Your task to perform on an android device: Is it going to rain this weekend? Image 0: 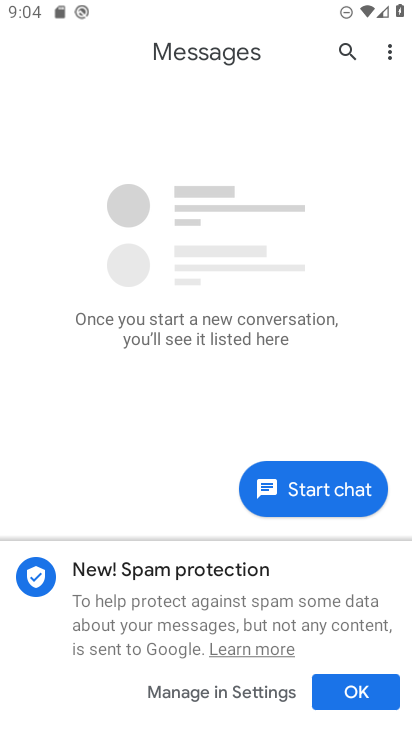
Step 0: press back button
Your task to perform on an android device: Is it going to rain this weekend? Image 1: 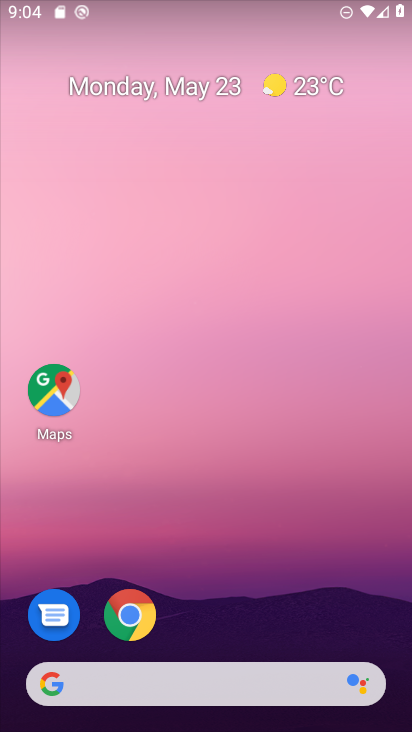
Step 1: drag from (274, 567) to (221, 107)
Your task to perform on an android device: Is it going to rain this weekend? Image 2: 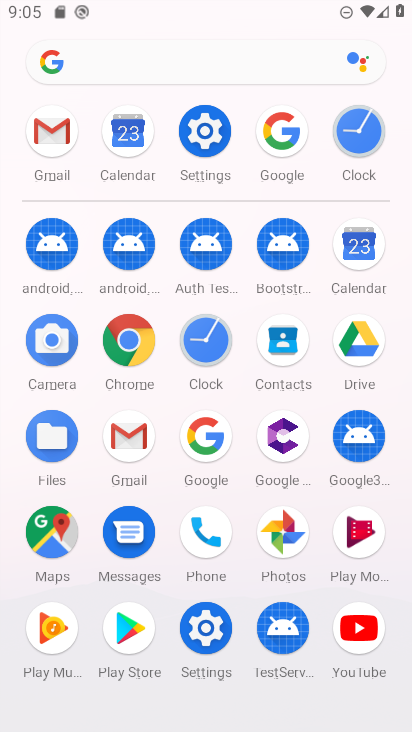
Step 2: click (278, 132)
Your task to perform on an android device: Is it going to rain this weekend? Image 3: 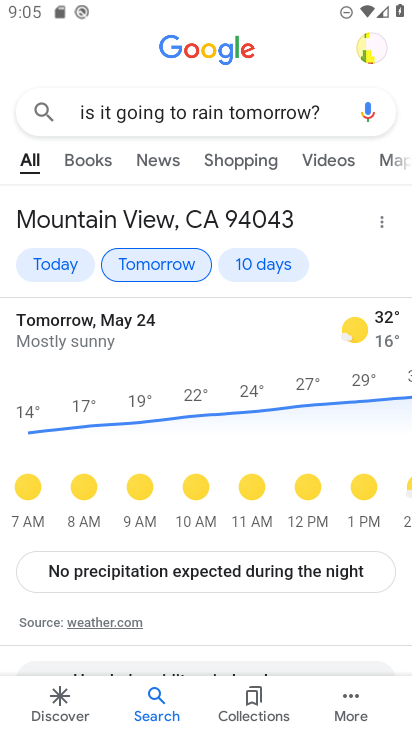
Step 3: click (310, 109)
Your task to perform on an android device: Is it going to rain this weekend? Image 4: 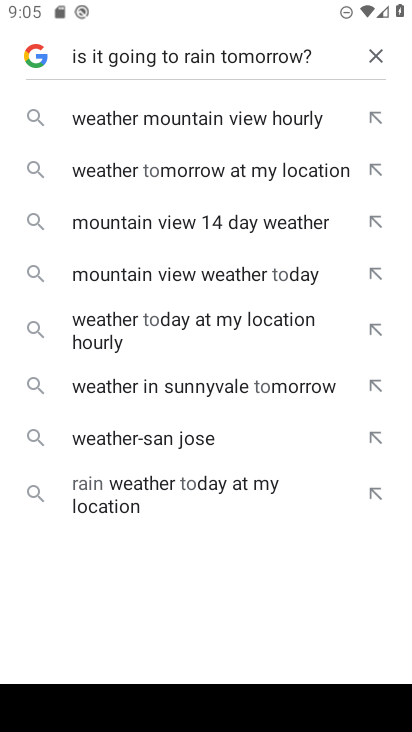
Step 4: click (377, 57)
Your task to perform on an android device: Is it going to rain this weekend? Image 5: 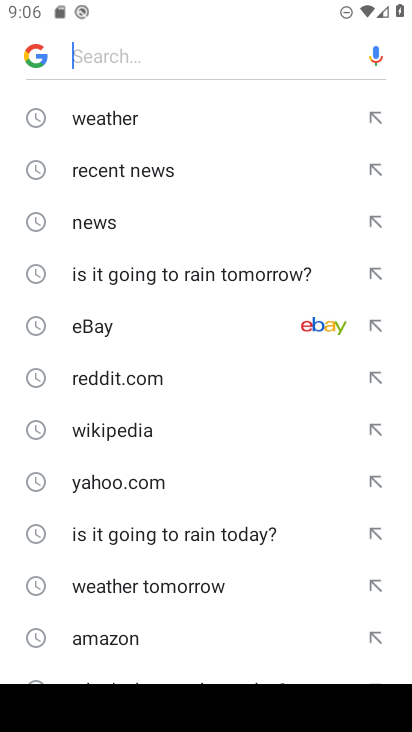
Step 5: type "Is it going to rain this weekend"
Your task to perform on an android device: Is it going to rain this weekend? Image 6: 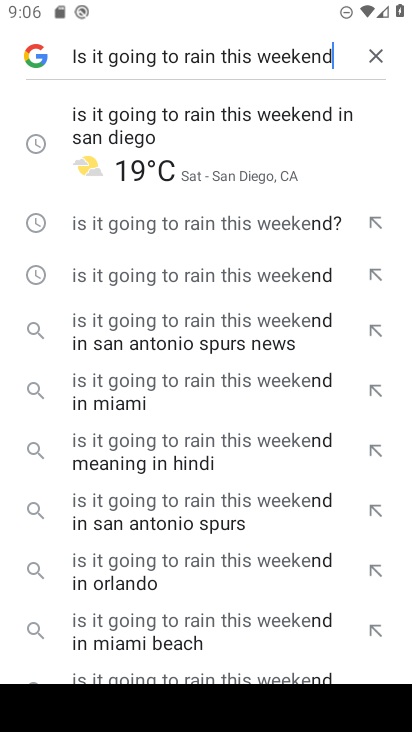
Step 6: type ""
Your task to perform on an android device: Is it going to rain this weekend? Image 7: 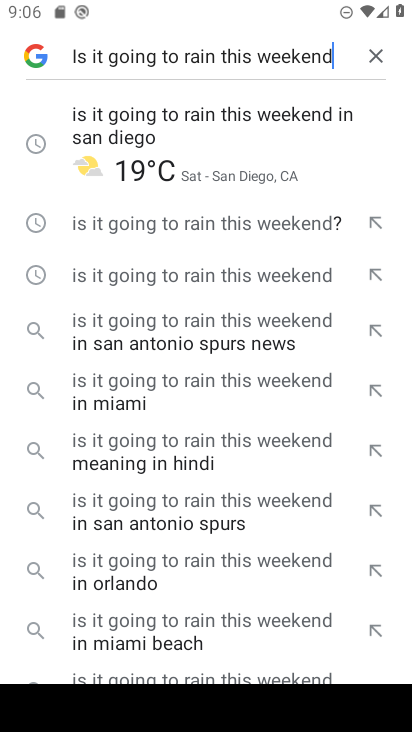
Step 7: click (120, 120)
Your task to perform on an android device: Is it going to rain this weekend? Image 8: 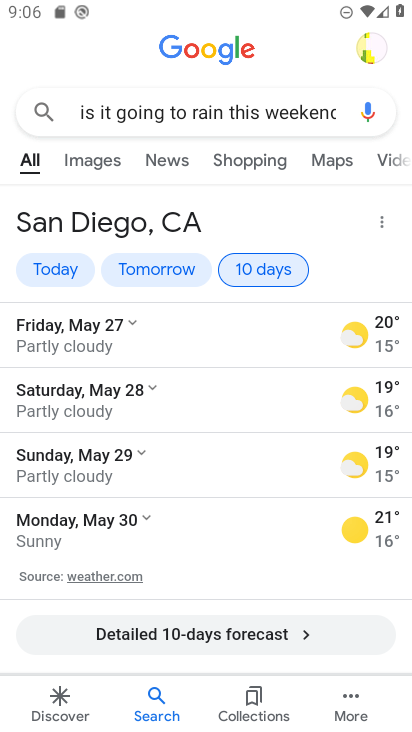
Step 8: task complete